Your task to perform on an android device: Search for Mexican restaurants on Maps Image 0: 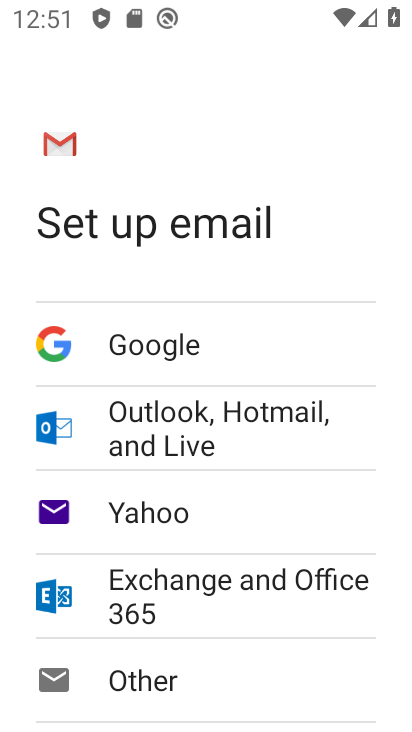
Step 0: press home button
Your task to perform on an android device: Search for Mexican restaurants on Maps Image 1: 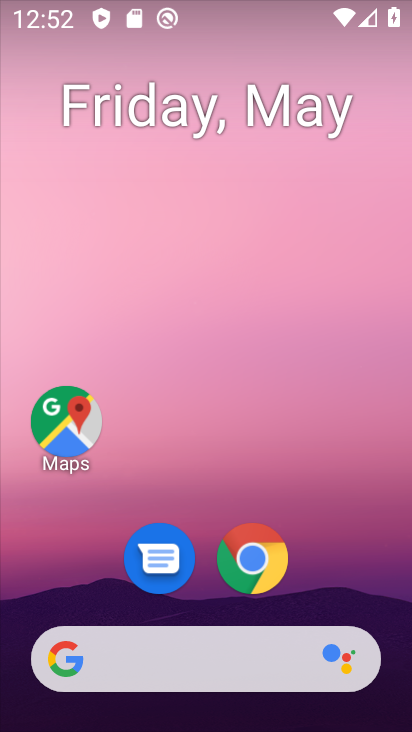
Step 1: click (66, 412)
Your task to perform on an android device: Search for Mexican restaurants on Maps Image 2: 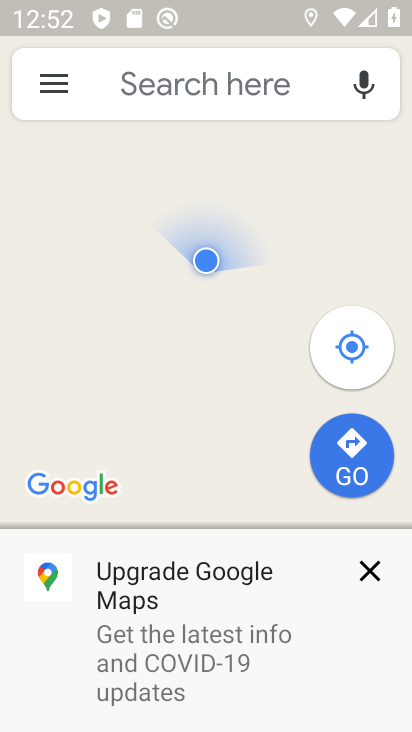
Step 2: click (221, 107)
Your task to perform on an android device: Search for Mexican restaurants on Maps Image 3: 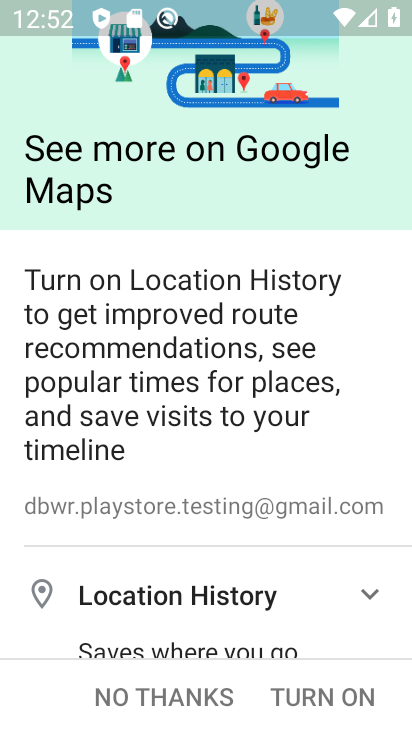
Step 3: click (178, 701)
Your task to perform on an android device: Search for Mexican restaurants on Maps Image 4: 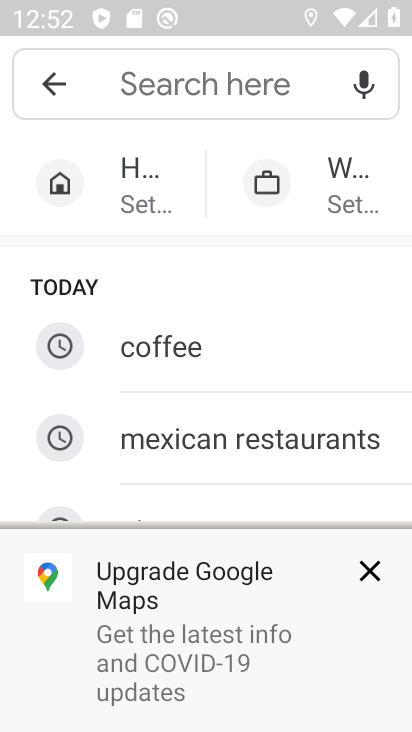
Step 4: click (359, 569)
Your task to perform on an android device: Search for Mexican restaurants on Maps Image 5: 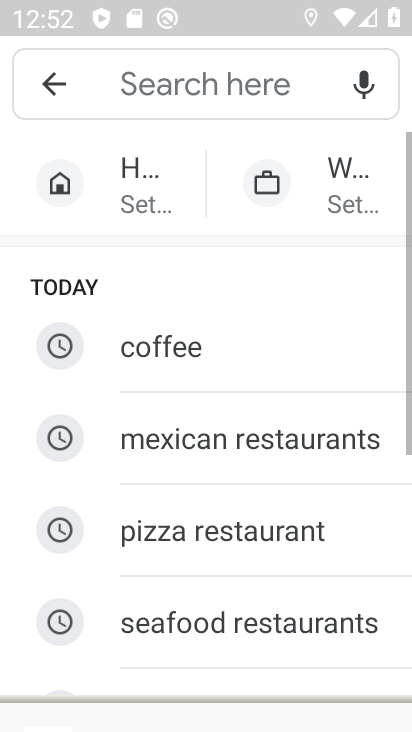
Step 5: click (293, 436)
Your task to perform on an android device: Search for Mexican restaurants on Maps Image 6: 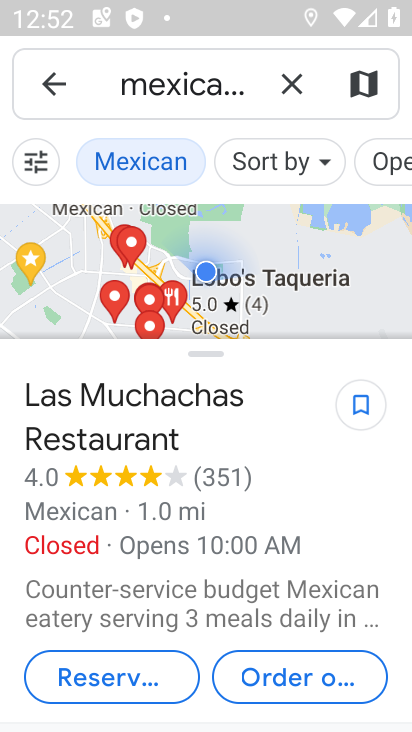
Step 6: task complete